Your task to perform on an android device: Toggle the flashlight Image 0: 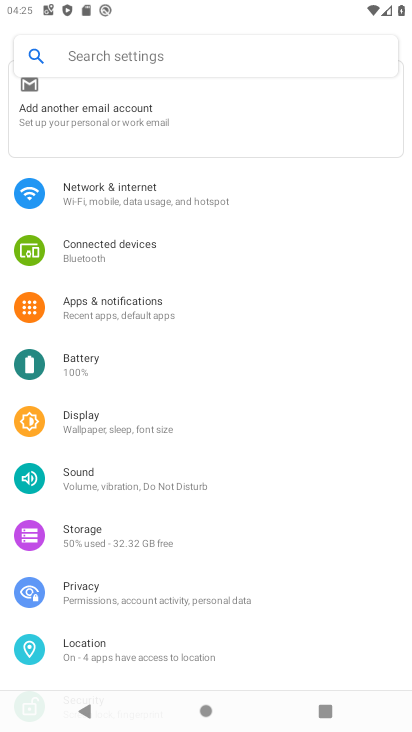
Step 0: click (156, 304)
Your task to perform on an android device: Toggle the flashlight Image 1: 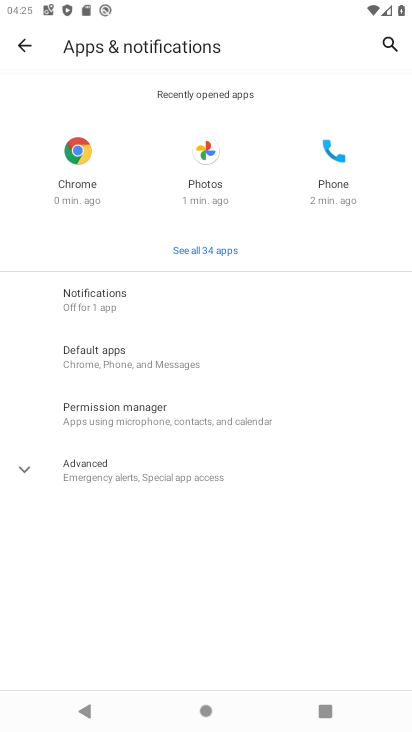
Step 1: task complete